Your task to perform on an android device: open chrome privacy settings Image 0: 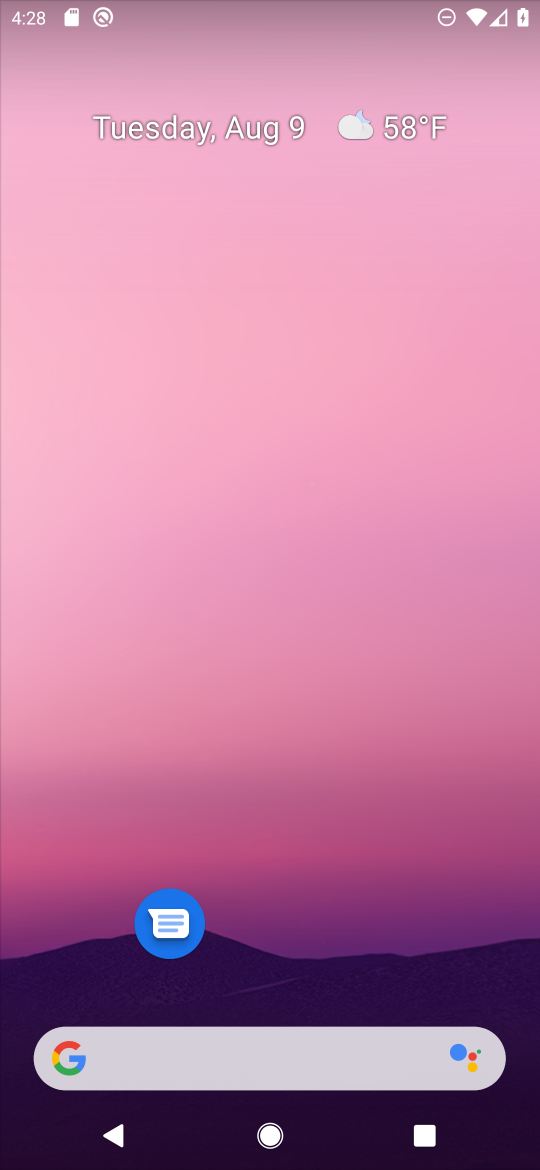
Step 0: drag from (328, 907) to (399, 215)
Your task to perform on an android device: open chrome privacy settings Image 1: 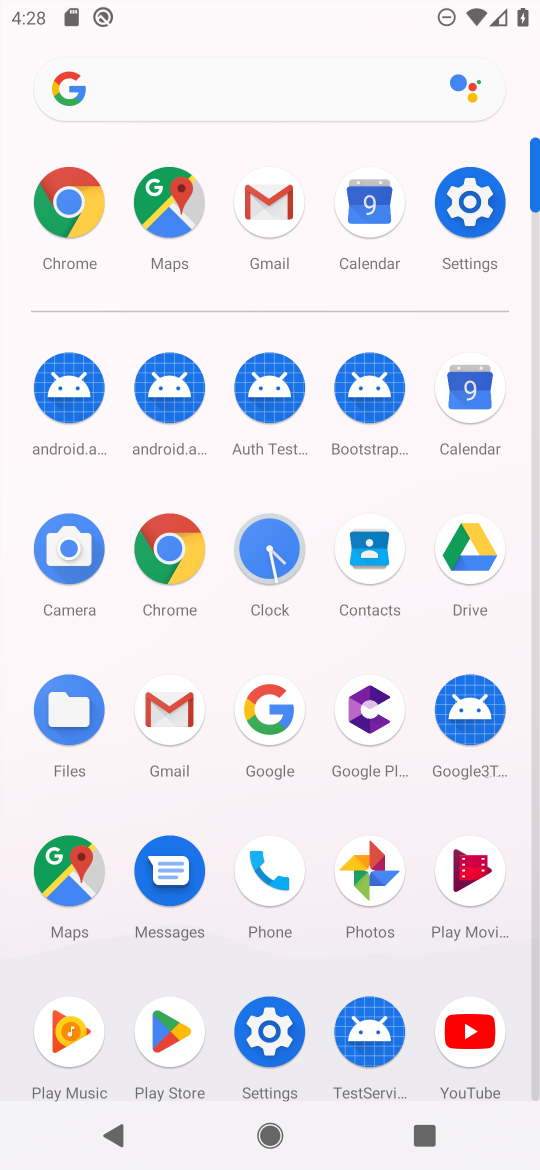
Step 1: click (61, 209)
Your task to perform on an android device: open chrome privacy settings Image 2: 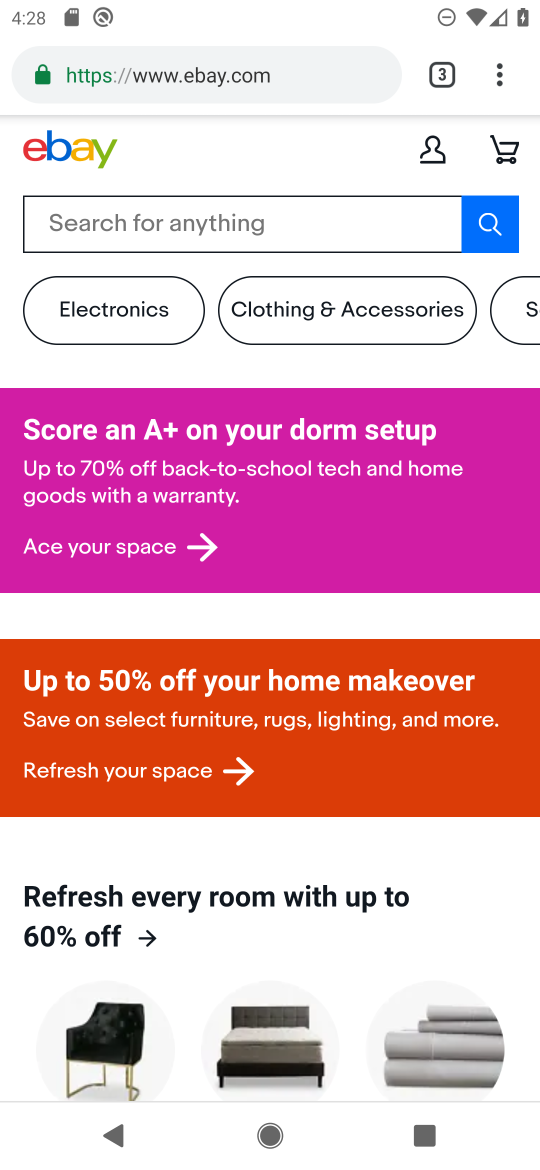
Step 2: drag from (512, 63) to (235, 979)
Your task to perform on an android device: open chrome privacy settings Image 3: 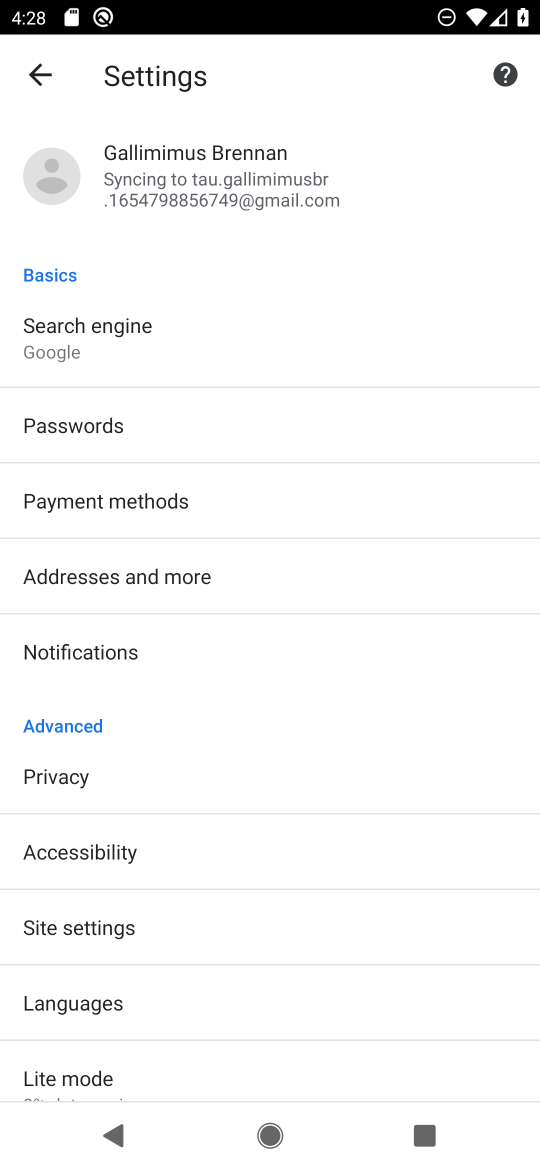
Step 3: click (78, 771)
Your task to perform on an android device: open chrome privacy settings Image 4: 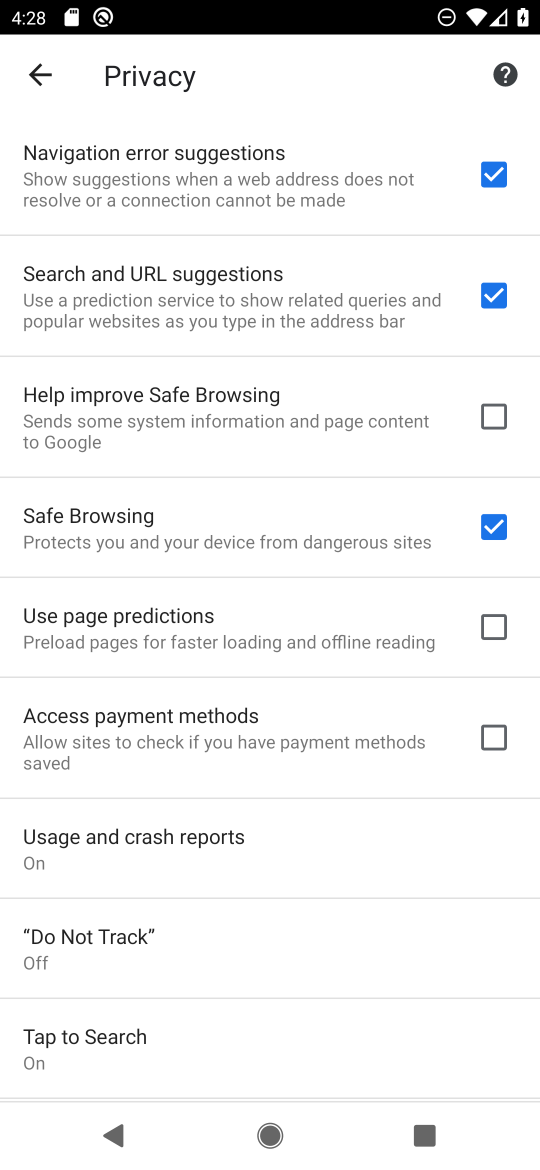
Step 4: task complete